Your task to perform on an android device: Open Yahoo.com Image 0: 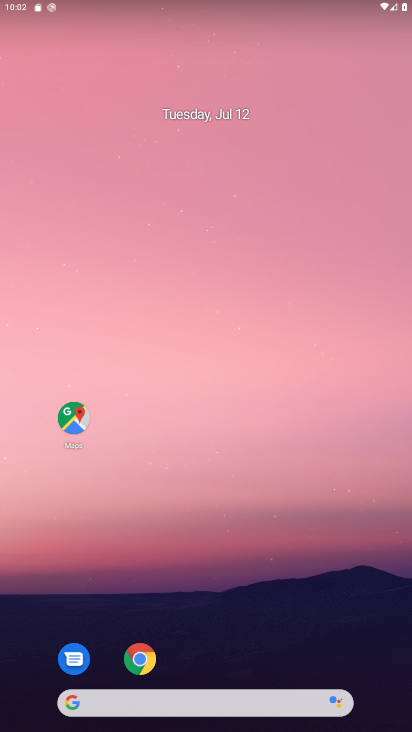
Step 0: drag from (205, 496) to (205, 140)
Your task to perform on an android device: Open Yahoo.com Image 1: 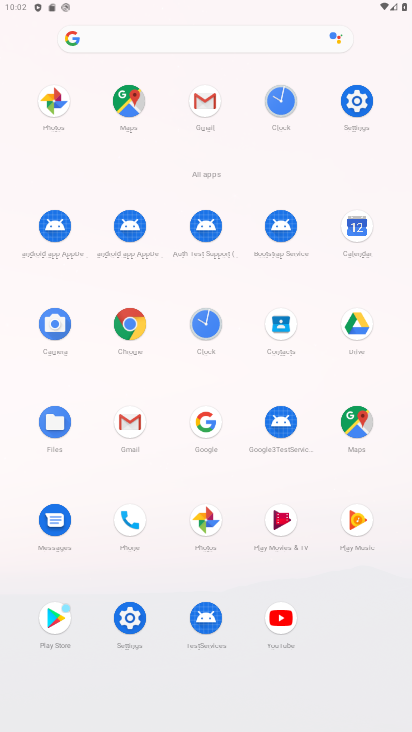
Step 1: click (129, 331)
Your task to perform on an android device: Open Yahoo.com Image 2: 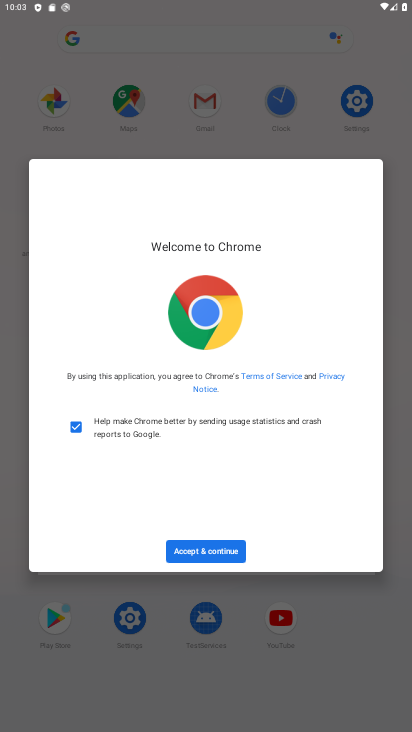
Step 2: click (185, 548)
Your task to perform on an android device: Open Yahoo.com Image 3: 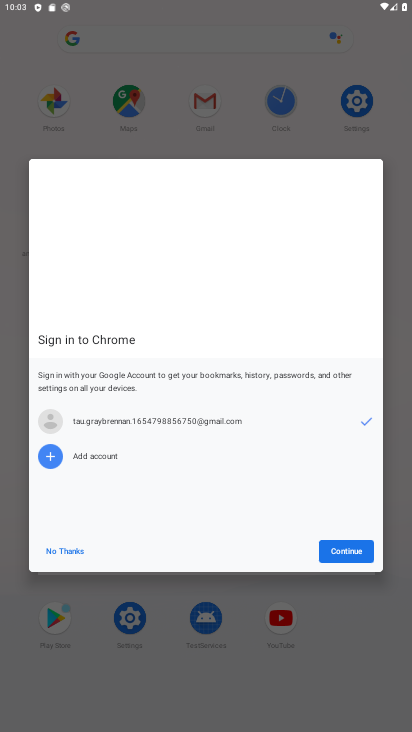
Step 3: click (329, 548)
Your task to perform on an android device: Open Yahoo.com Image 4: 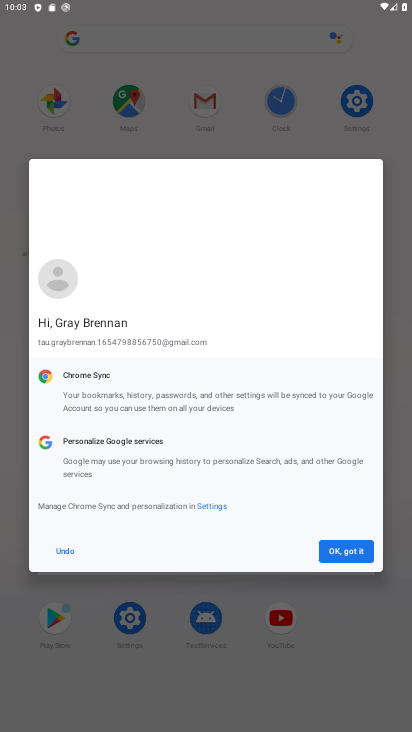
Step 4: click (329, 548)
Your task to perform on an android device: Open Yahoo.com Image 5: 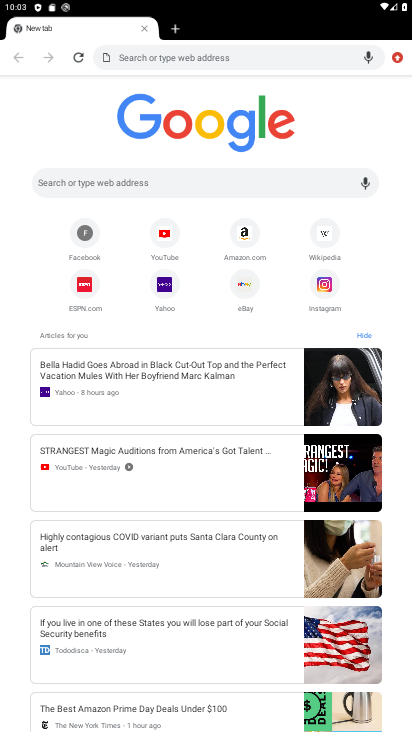
Step 5: click (164, 303)
Your task to perform on an android device: Open Yahoo.com Image 6: 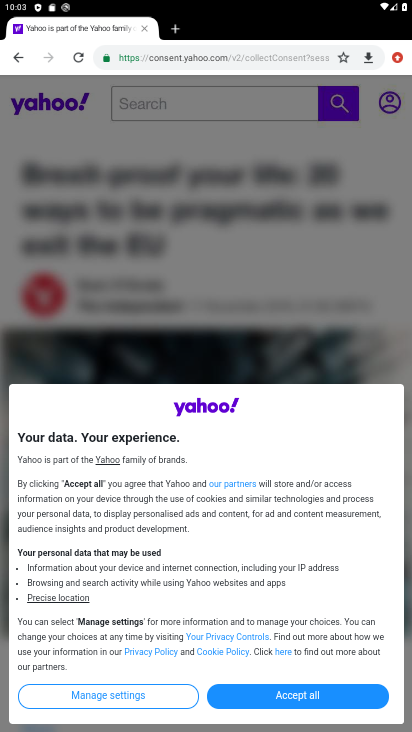
Step 6: task complete